Your task to perform on an android device: Open Chrome and go to settings Image 0: 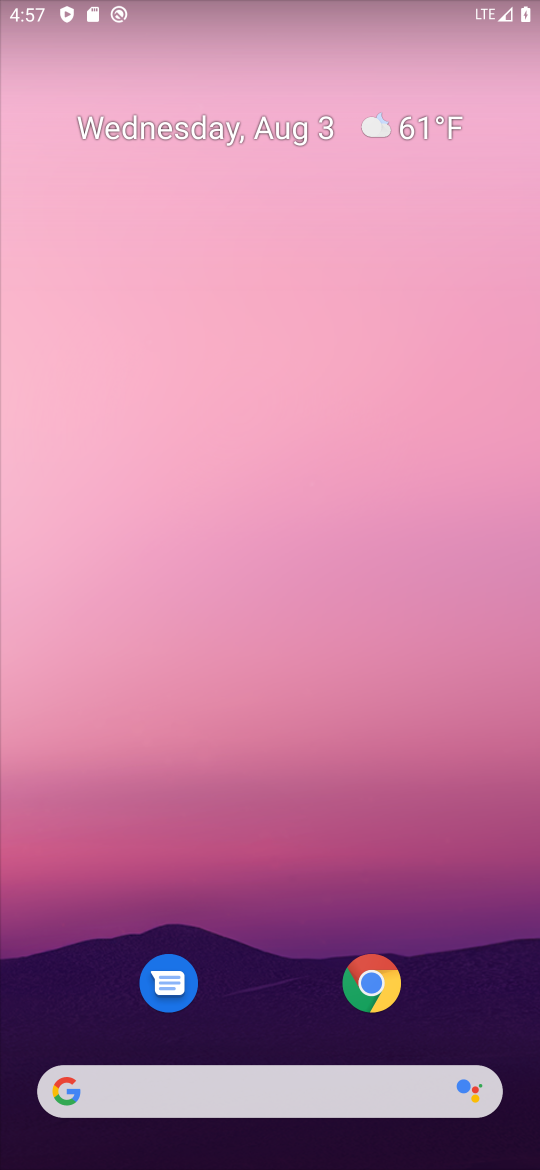
Step 0: press home button
Your task to perform on an android device: Open Chrome and go to settings Image 1: 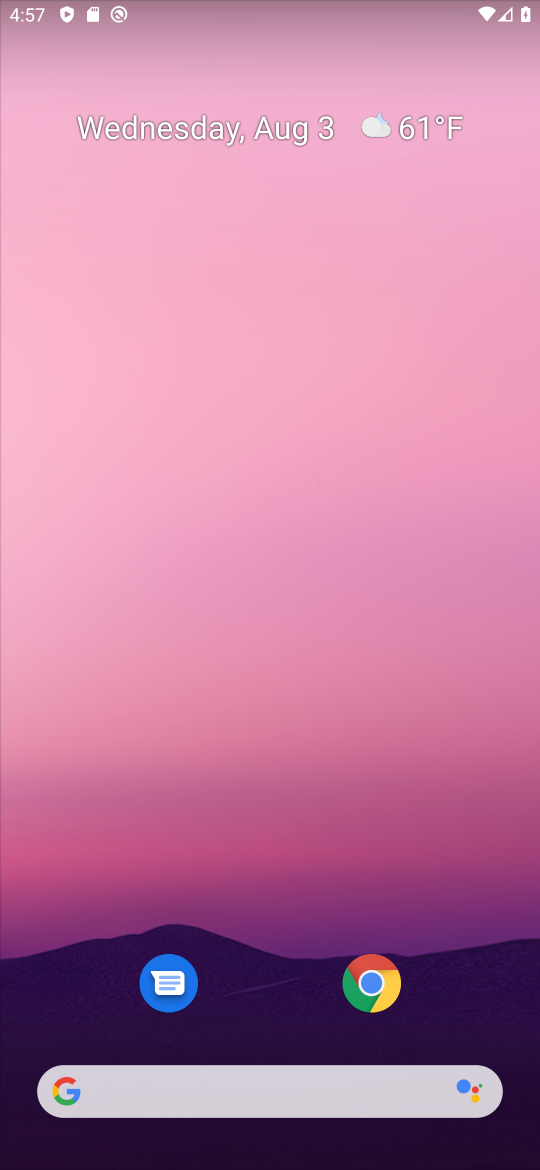
Step 1: click (377, 975)
Your task to perform on an android device: Open Chrome and go to settings Image 2: 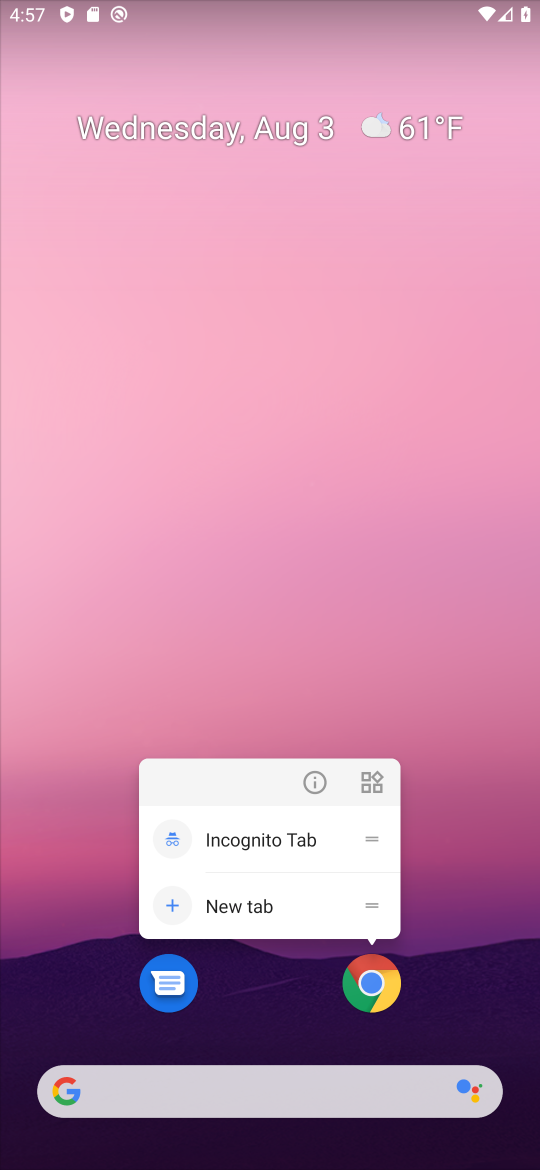
Step 2: click (366, 988)
Your task to perform on an android device: Open Chrome and go to settings Image 3: 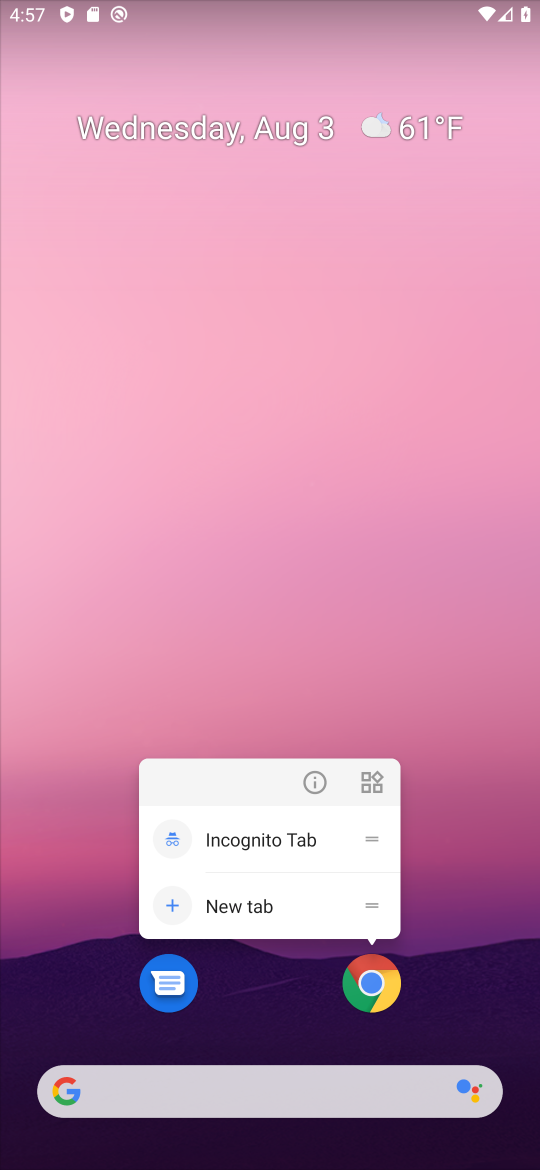
Step 3: click (428, 1006)
Your task to perform on an android device: Open Chrome and go to settings Image 4: 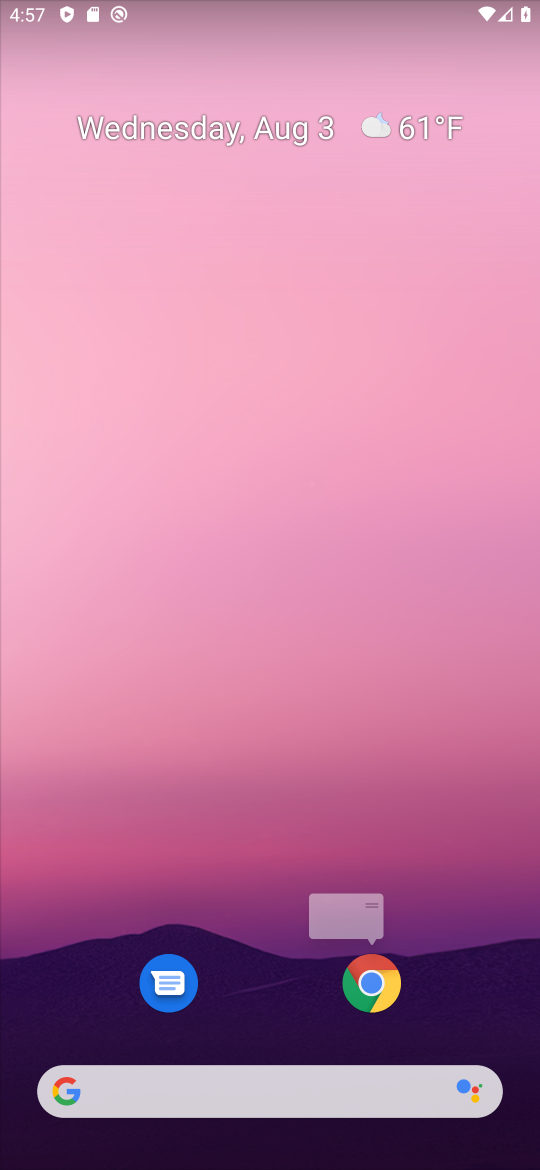
Step 4: drag from (464, 1033) to (396, 317)
Your task to perform on an android device: Open Chrome and go to settings Image 5: 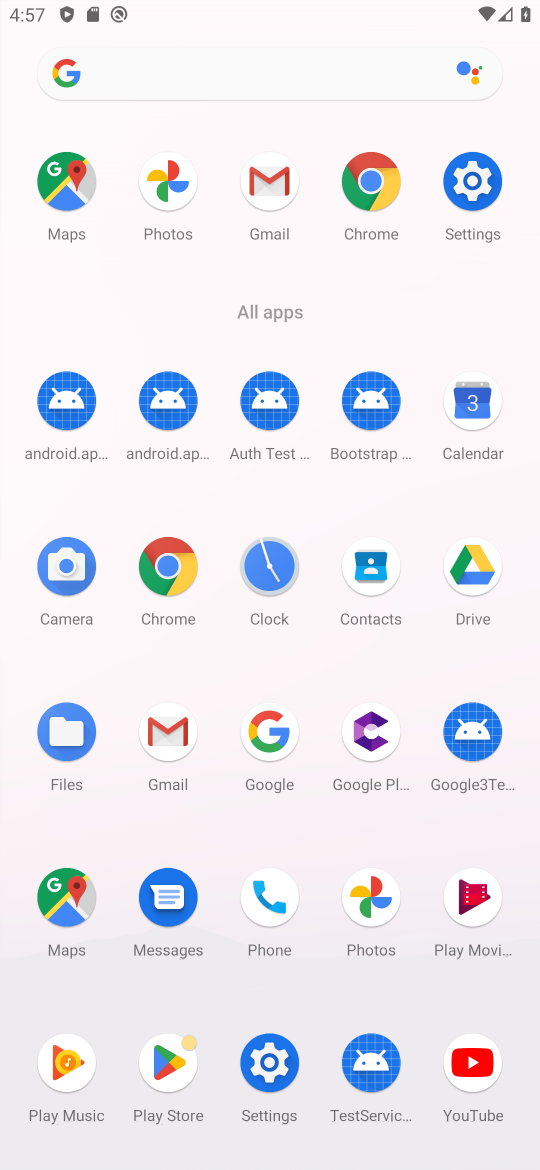
Step 5: click (366, 207)
Your task to perform on an android device: Open Chrome and go to settings Image 6: 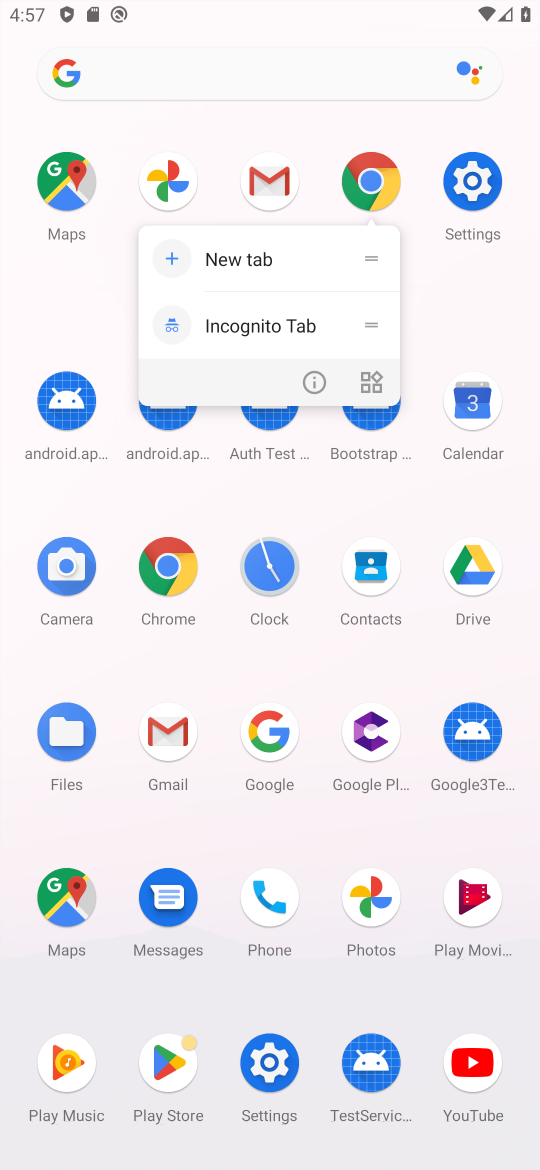
Step 6: click (372, 189)
Your task to perform on an android device: Open Chrome and go to settings Image 7: 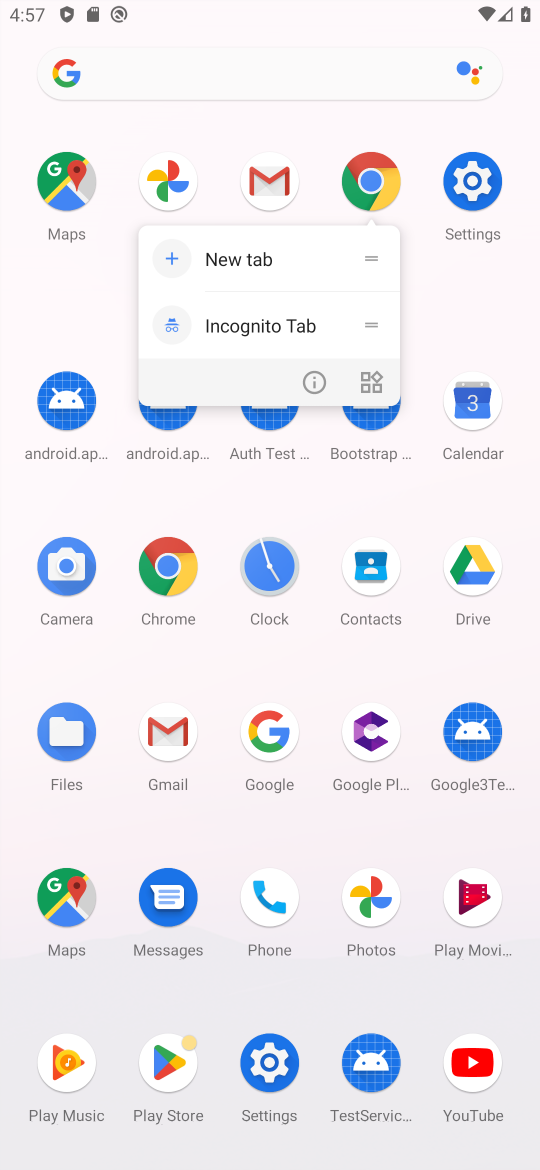
Step 7: click (375, 173)
Your task to perform on an android device: Open Chrome and go to settings Image 8: 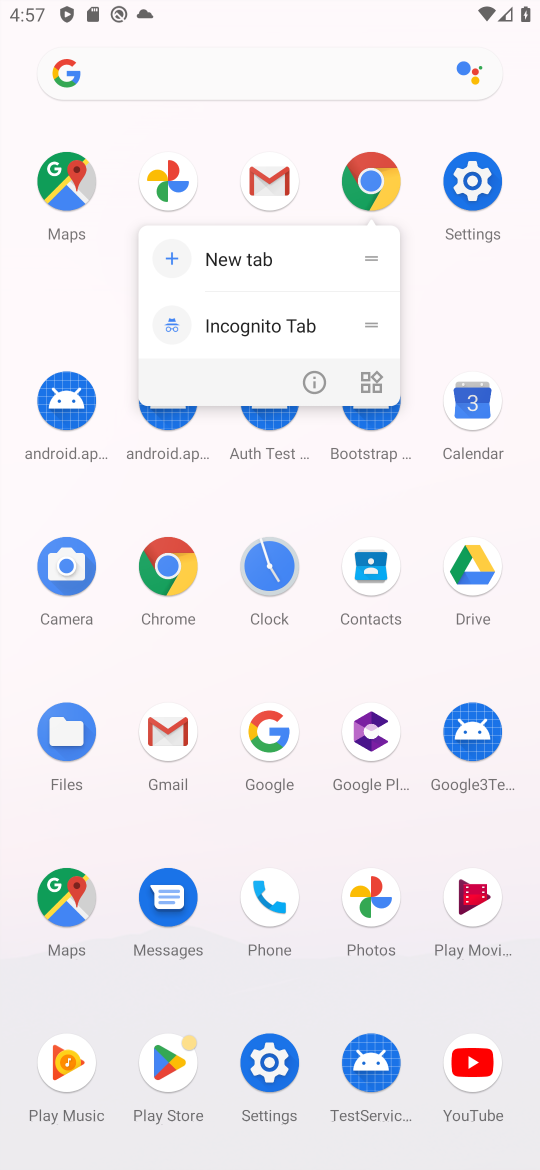
Step 8: click (375, 177)
Your task to perform on an android device: Open Chrome and go to settings Image 9: 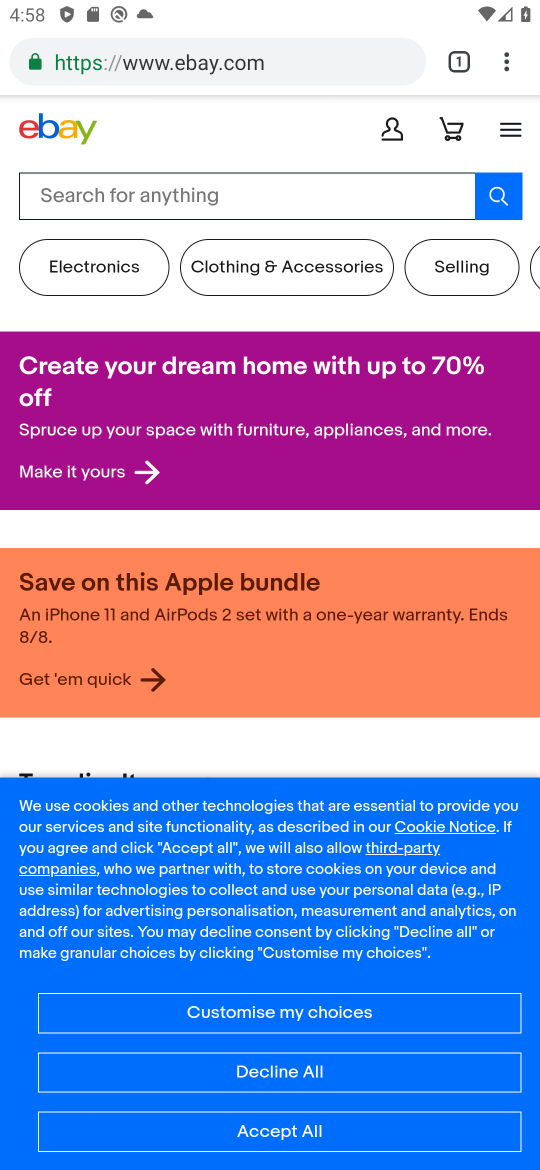
Step 9: task complete